Your task to perform on an android device: refresh tabs in the chrome app Image 0: 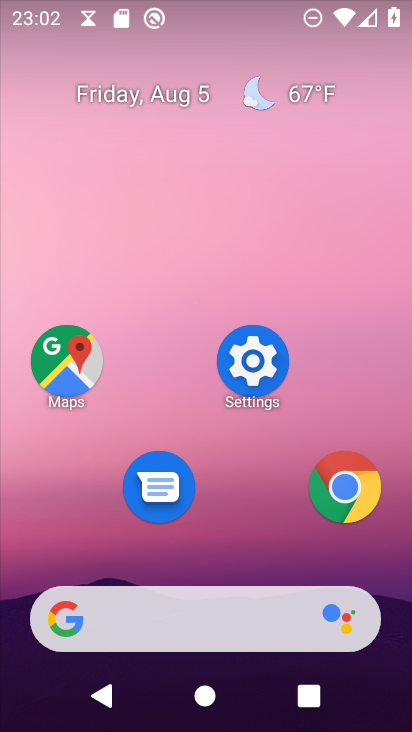
Step 0: click (349, 493)
Your task to perform on an android device: refresh tabs in the chrome app Image 1: 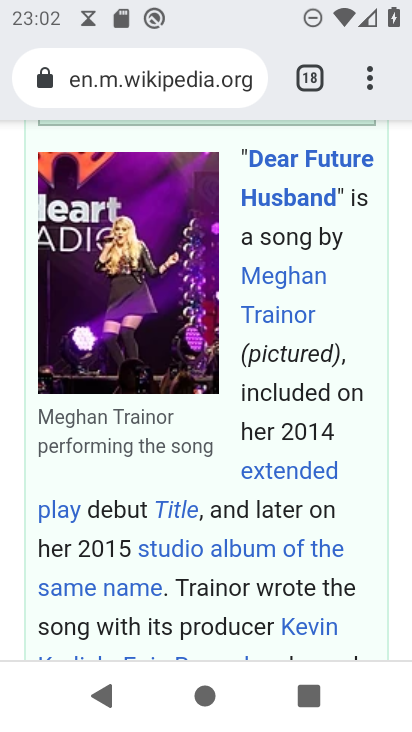
Step 1: click (368, 94)
Your task to perform on an android device: refresh tabs in the chrome app Image 2: 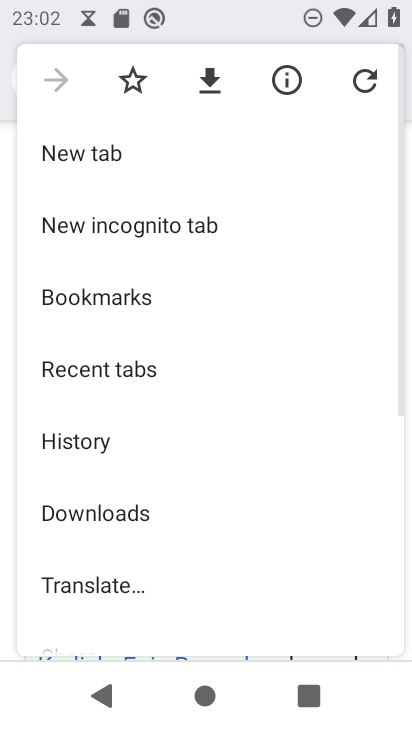
Step 2: click (364, 82)
Your task to perform on an android device: refresh tabs in the chrome app Image 3: 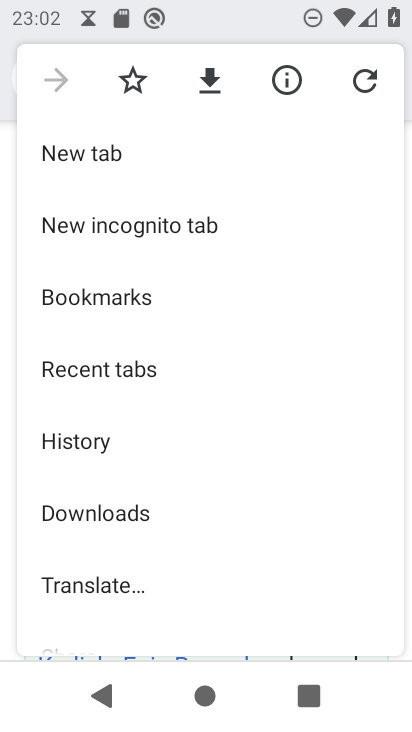
Step 3: click (355, 75)
Your task to perform on an android device: refresh tabs in the chrome app Image 4: 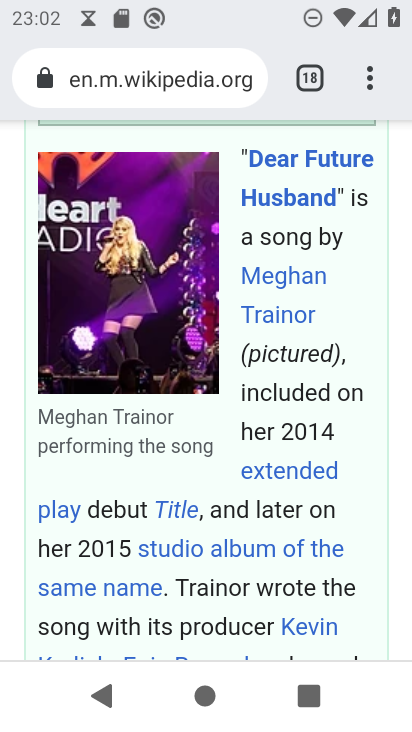
Step 4: task complete